Your task to perform on an android device: toggle notification dots Image 0: 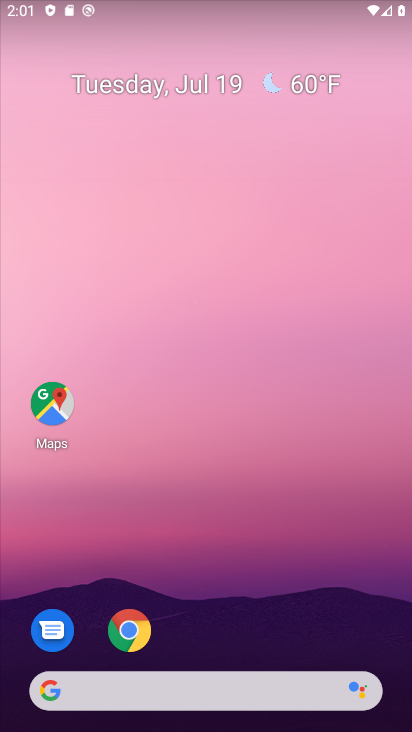
Step 0: drag from (172, 537) to (200, 13)
Your task to perform on an android device: toggle notification dots Image 1: 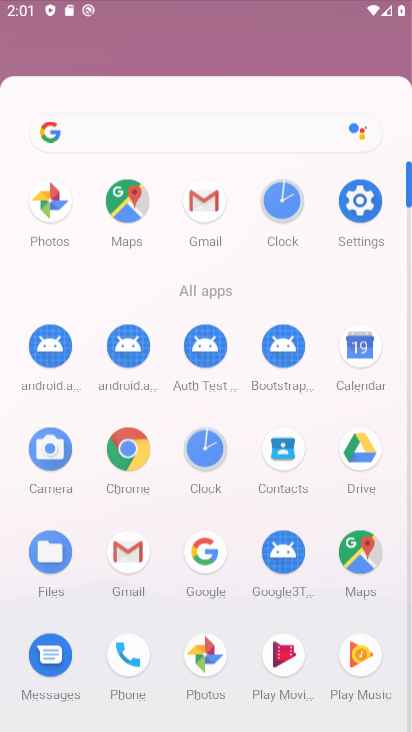
Step 1: drag from (172, 440) to (143, 19)
Your task to perform on an android device: toggle notification dots Image 2: 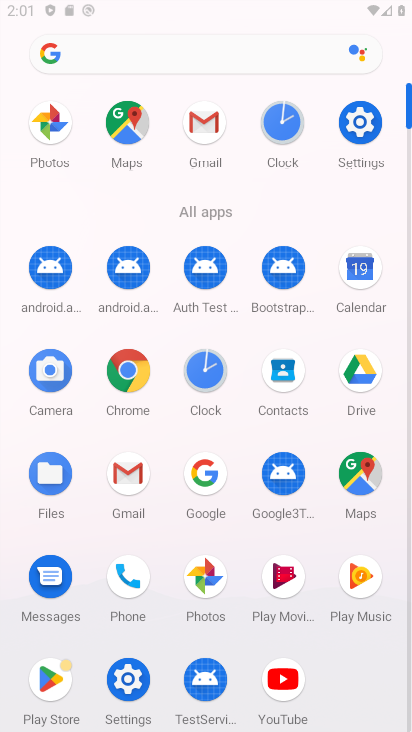
Step 2: drag from (148, 374) to (165, 186)
Your task to perform on an android device: toggle notification dots Image 3: 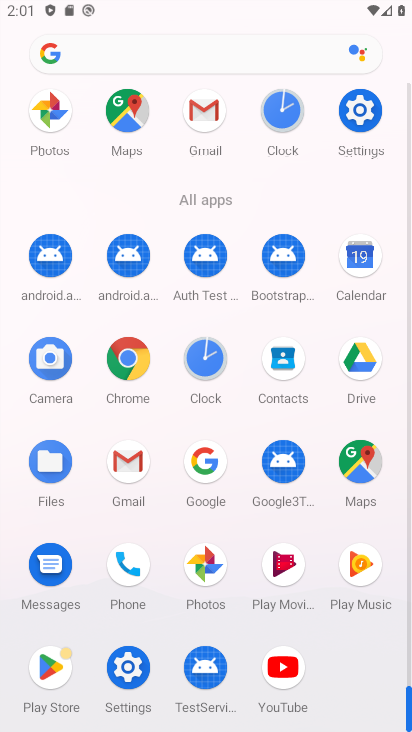
Step 3: click (360, 108)
Your task to perform on an android device: toggle notification dots Image 4: 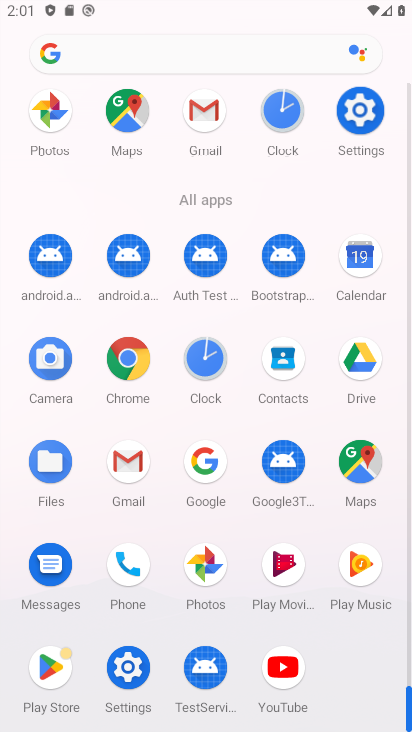
Step 4: click (355, 107)
Your task to perform on an android device: toggle notification dots Image 5: 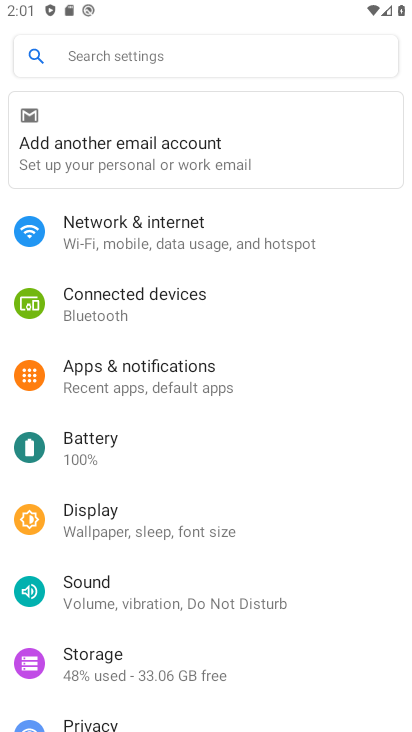
Step 5: click (129, 359)
Your task to perform on an android device: toggle notification dots Image 6: 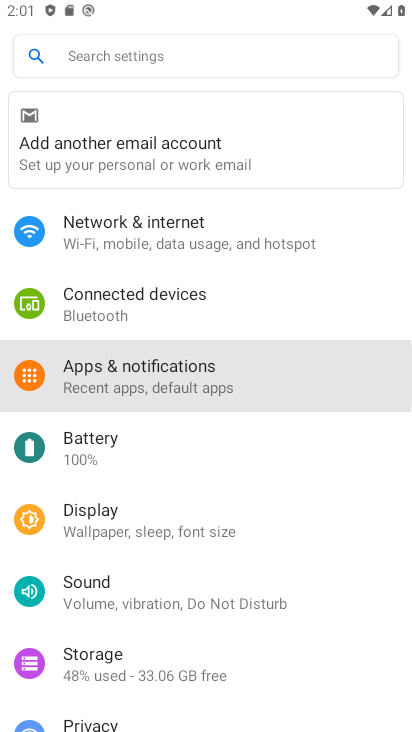
Step 6: click (132, 376)
Your task to perform on an android device: toggle notification dots Image 7: 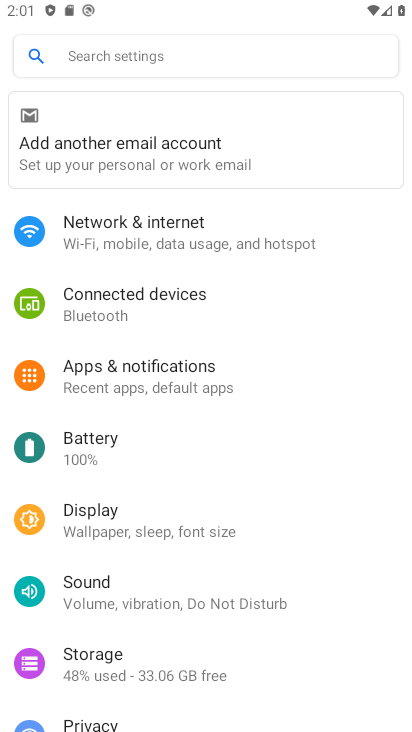
Step 7: click (131, 381)
Your task to perform on an android device: toggle notification dots Image 8: 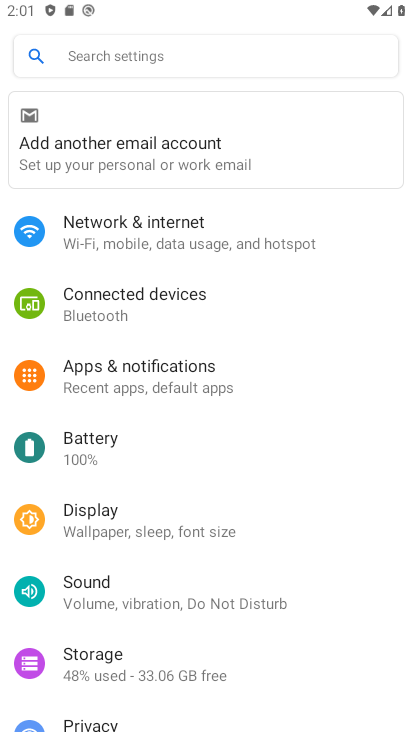
Step 8: click (138, 380)
Your task to perform on an android device: toggle notification dots Image 9: 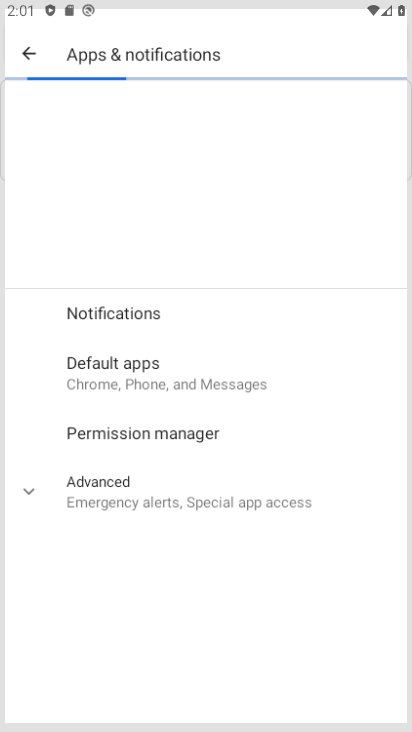
Step 9: click (139, 381)
Your task to perform on an android device: toggle notification dots Image 10: 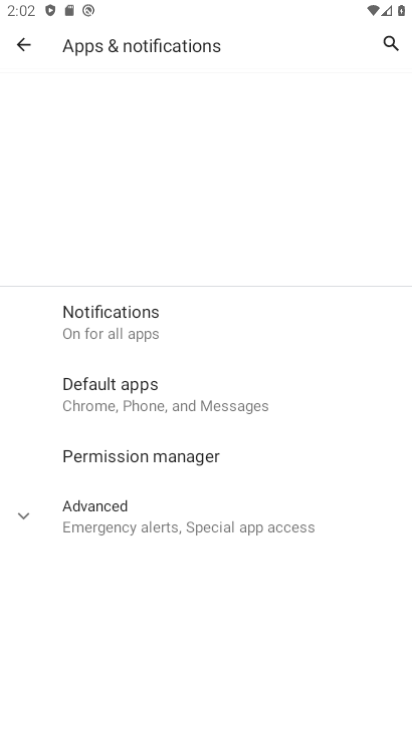
Step 10: click (100, 328)
Your task to perform on an android device: toggle notification dots Image 11: 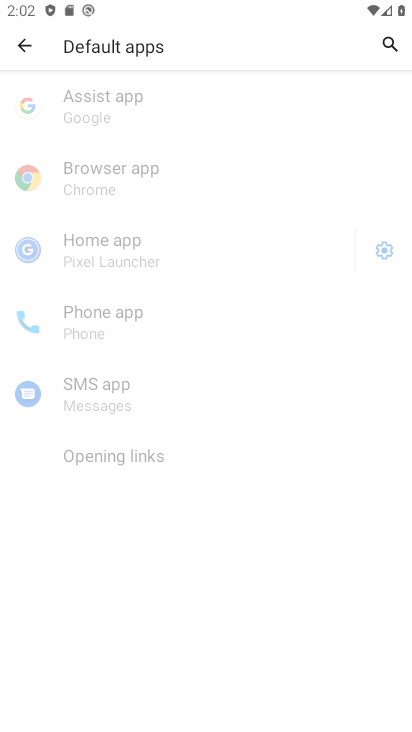
Step 11: click (102, 323)
Your task to perform on an android device: toggle notification dots Image 12: 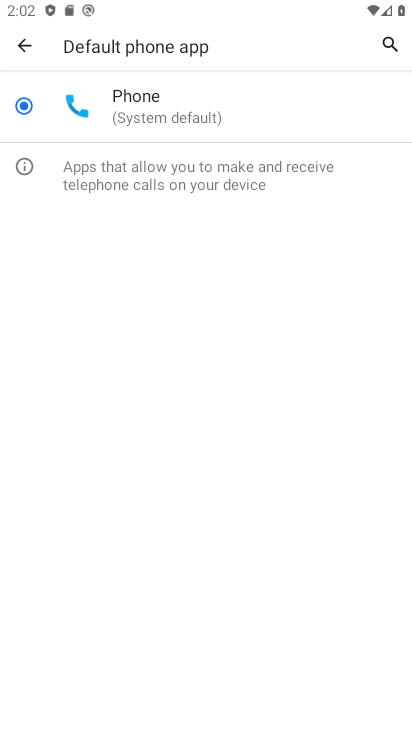
Step 12: click (21, 34)
Your task to perform on an android device: toggle notification dots Image 13: 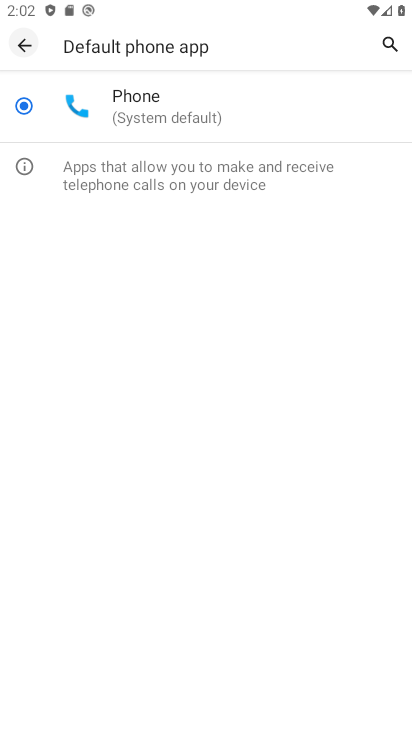
Step 13: click (21, 34)
Your task to perform on an android device: toggle notification dots Image 14: 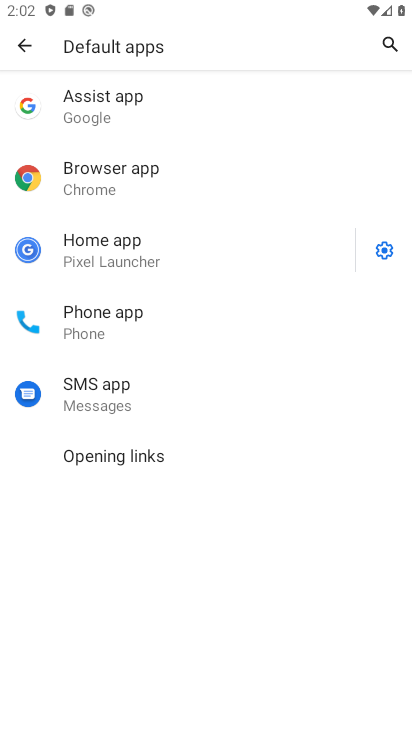
Step 14: click (25, 37)
Your task to perform on an android device: toggle notification dots Image 15: 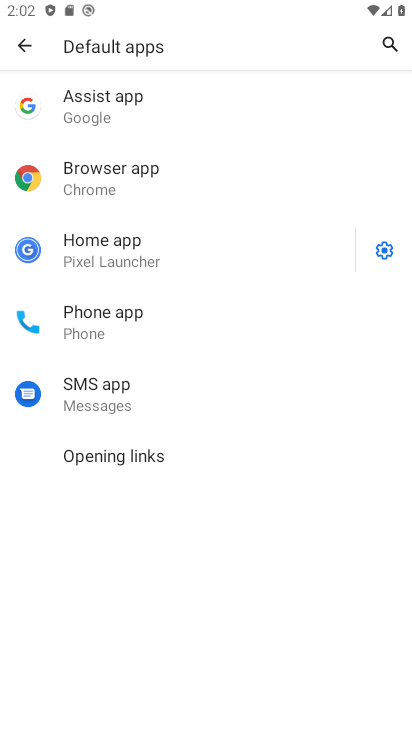
Step 15: click (28, 39)
Your task to perform on an android device: toggle notification dots Image 16: 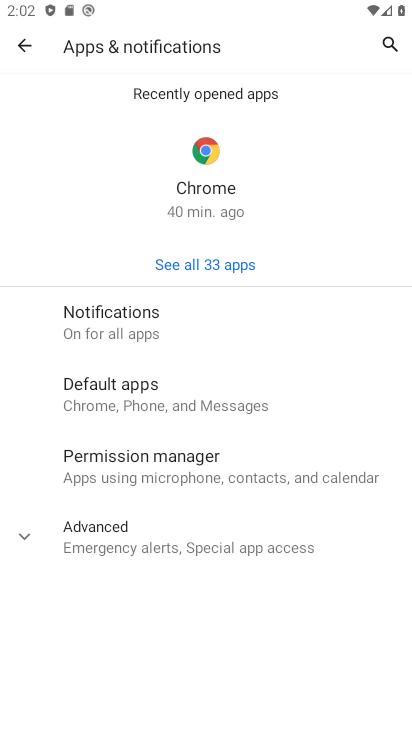
Step 16: click (26, 39)
Your task to perform on an android device: toggle notification dots Image 17: 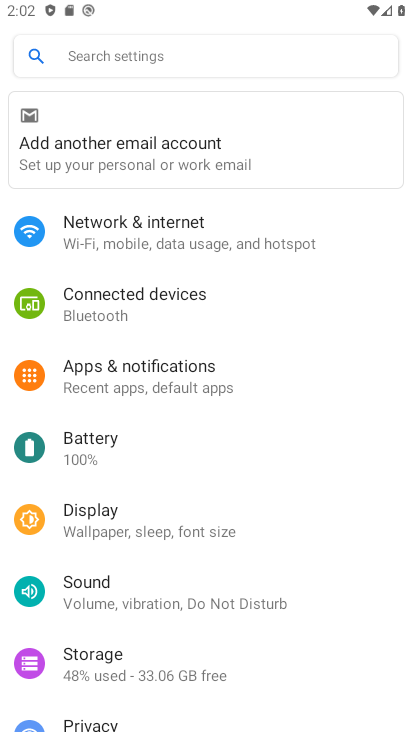
Step 17: click (137, 383)
Your task to perform on an android device: toggle notification dots Image 18: 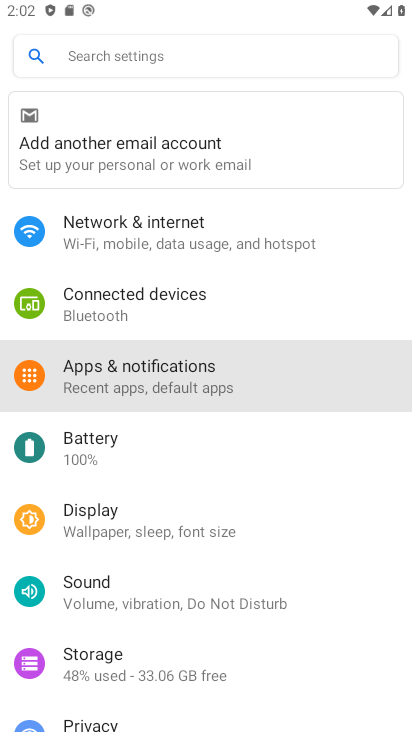
Step 18: click (136, 382)
Your task to perform on an android device: toggle notification dots Image 19: 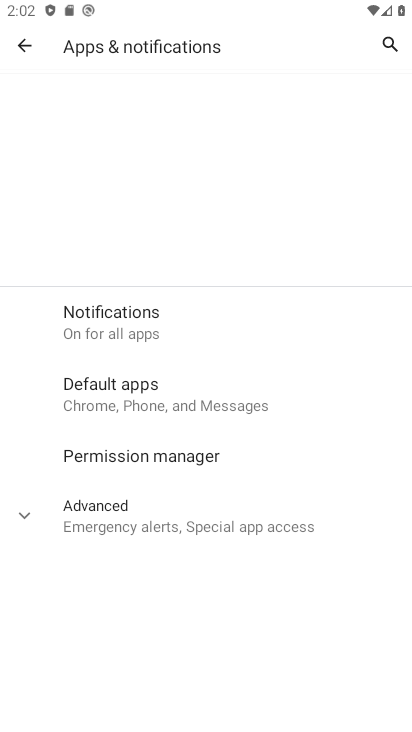
Step 19: click (137, 382)
Your task to perform on an android device: toggle notification dots Image 20: 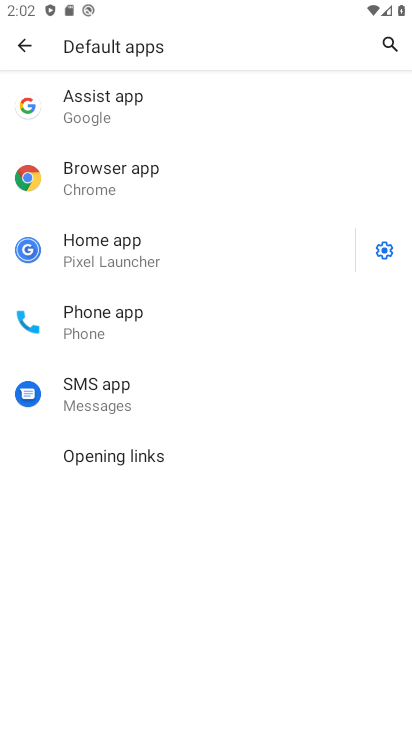
Step 20: click (18, 41)
Your task to perform on an android device: toggle notification dots Image 21: 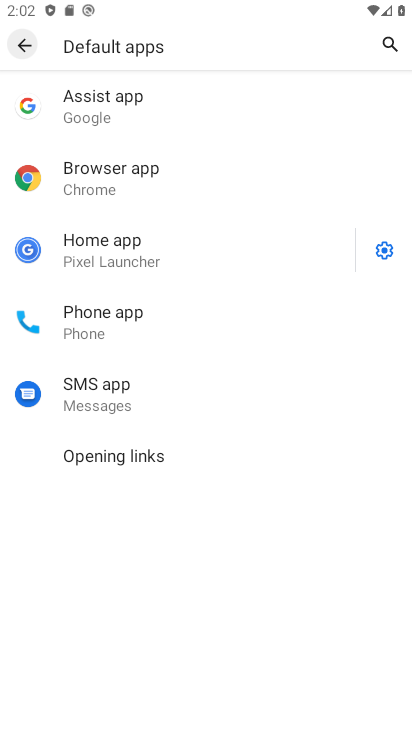
Step 21: click (14, 43)
Your task to perform on an android device: toggle notification dots Image 22: 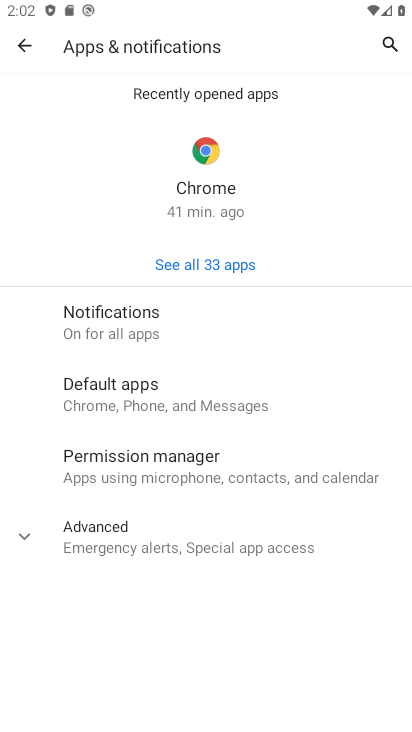
Step 22: click (106, 316)
Your task to perform on an android device: toggle notification dots Image 23: 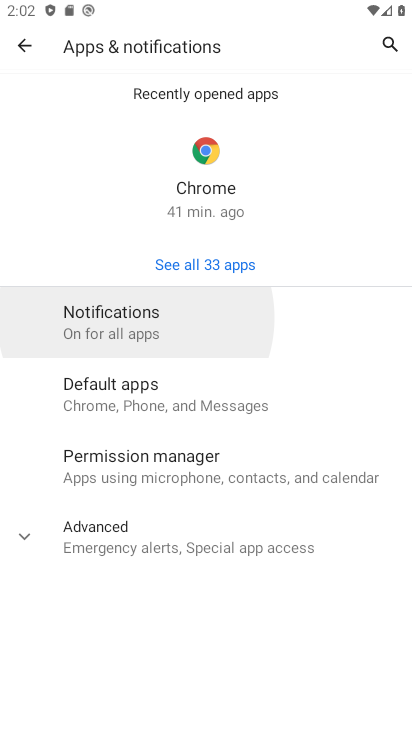
Step 23: click (116, 314)
Your task to perform on an android device: toggle notification dots Image 24: 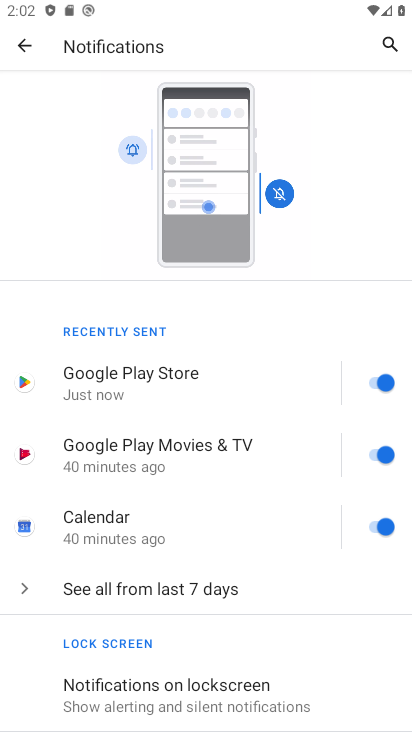
Step 24: drag from (214, 653) to (168, 309)
Your task to perform on an android device: toggle notification dots Image 25: 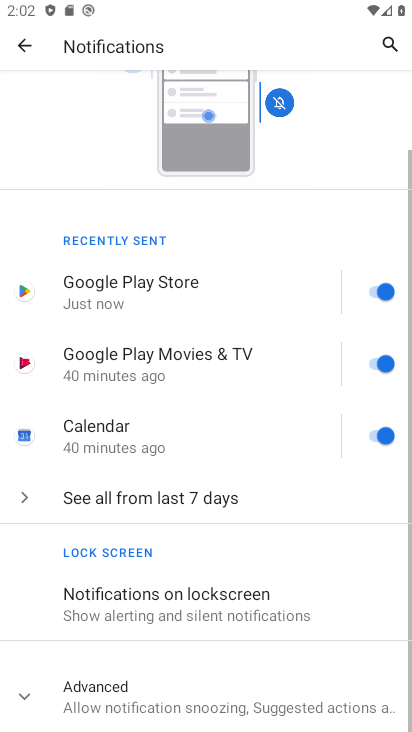
Step 25: drag from (195, 517) to (166, 298)
Your task to perform on an android device: toggle notification dots Image 26: 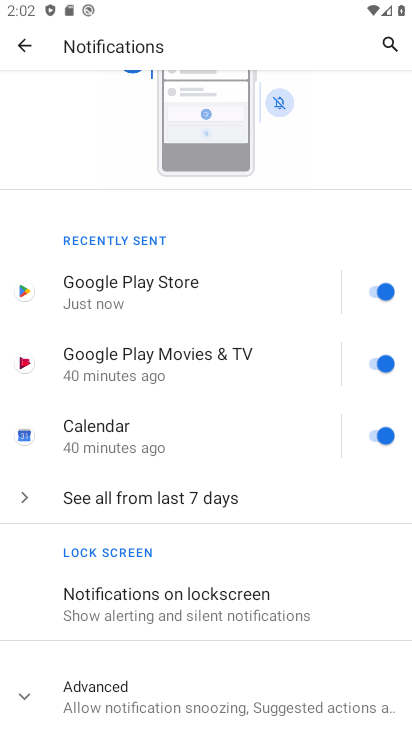
Step 26: click (123, 695)
Your task to perform on an android device: toggle notification dots Image 27: 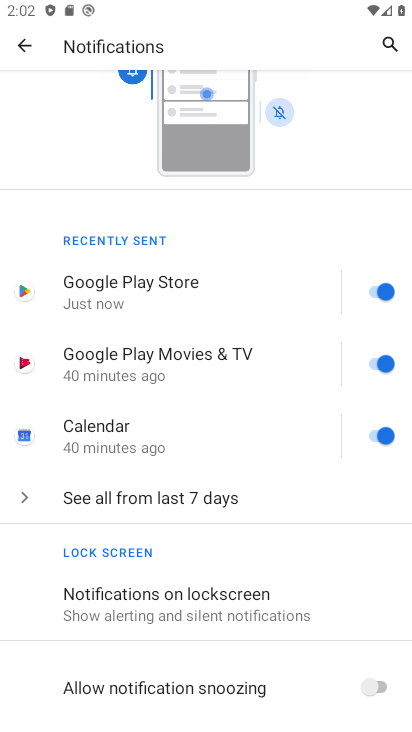
Step 27: drag from (287, 671) to (196, 261)
Your task to perform on an android device: toggle notification dots Image 28: 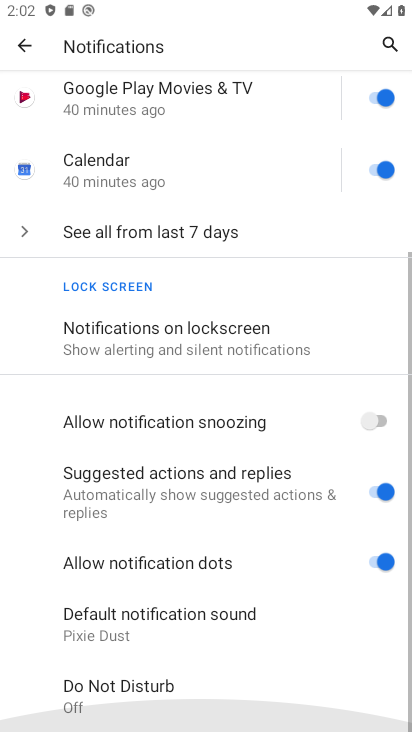
Step 28: drag from (235, 650) to (181, 245)
Your task to perform on an android device: toggle notification dots Image 29: 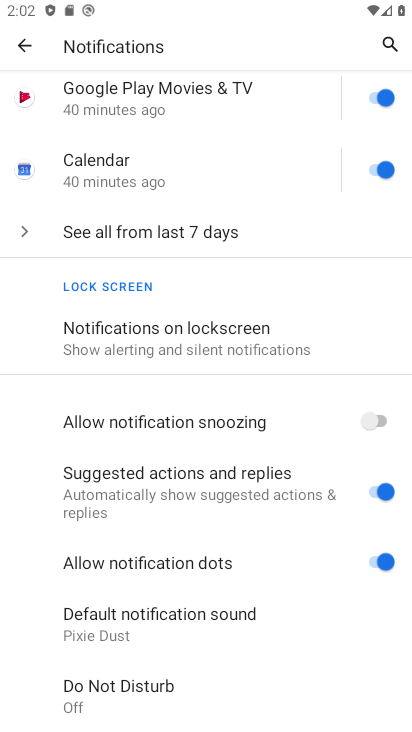
Step 29: click (378, 562)
Your task to perform on an android device: toggle notification dots Image 30: 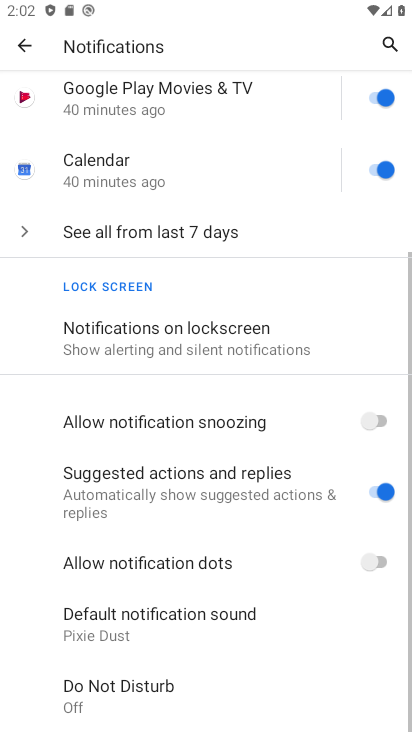
Step 30: task complete